Your task to perform on an android device: Is it going to rain tomorrow? Image 0: 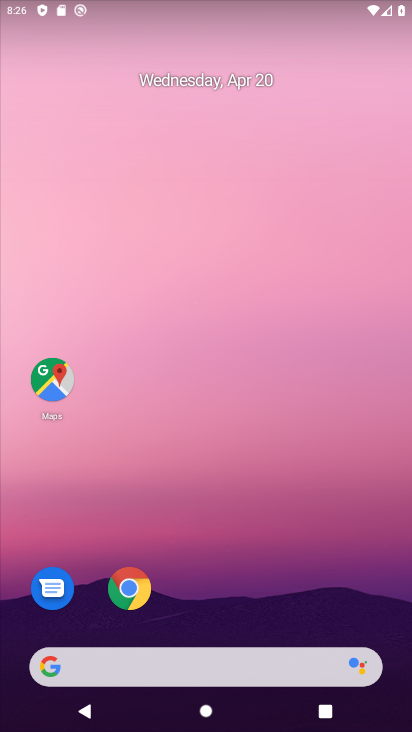
Step 0: drag from (377, 575) to (246, 8)
Your task to perform on an android device: Is it going to rain tomorrow? Image 1: 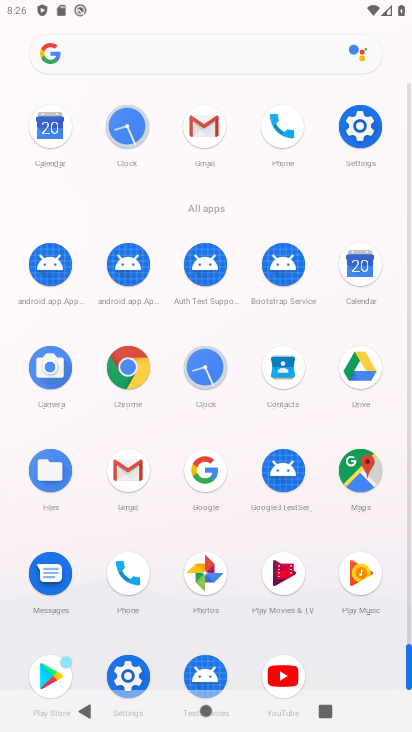
Step 1: click (361, 49)
Your task to perform on an android device: Is it going to rain tomorrow? Image 2: 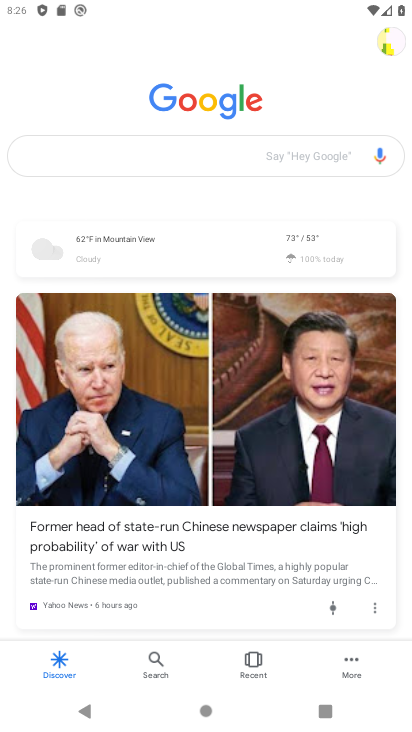
Step 2: click (199, 155)
Your task to perform on an android device: Is it going to rain tomorrow? Image 3: 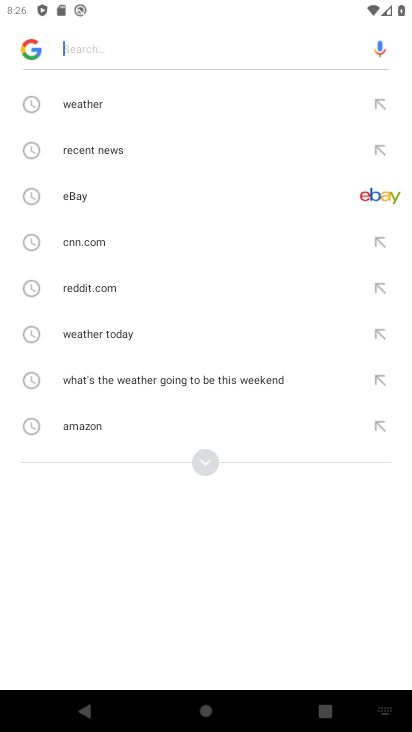
Step 3: type "Is it going to rain tomorrow"
Your task to perform on an android device: Is it going to rain tomorrow? Image 4: 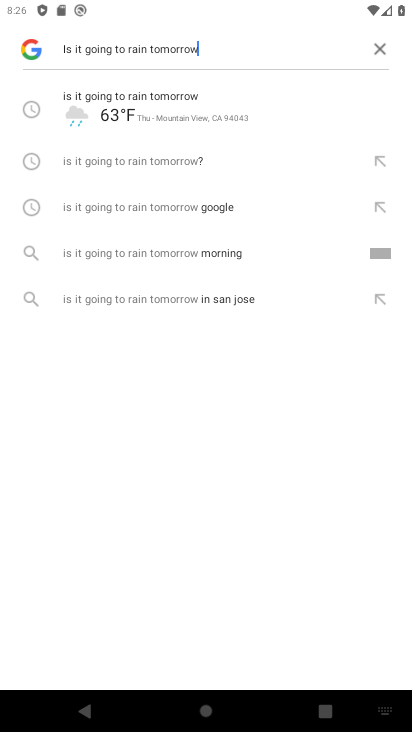
Step 4: click (186, 99)
Your task to perform on an android device: Is it going to rain tomorrow? Image 5: 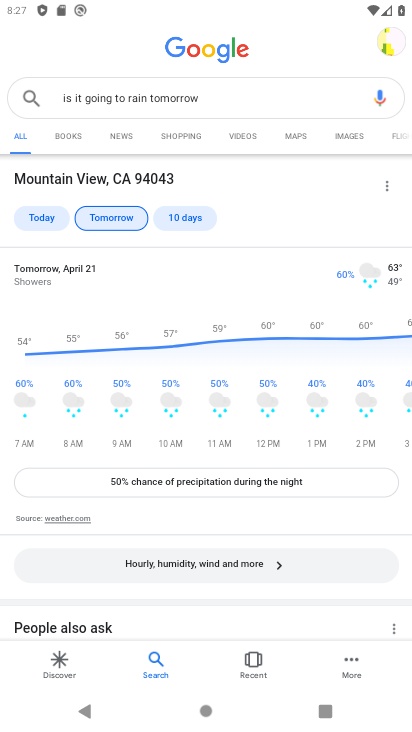
Step 5: task complete